Your task to perform on an android device: Search for acer nitro on target.com, select the first entry, add it to the cart, then select checkout. Image 0: 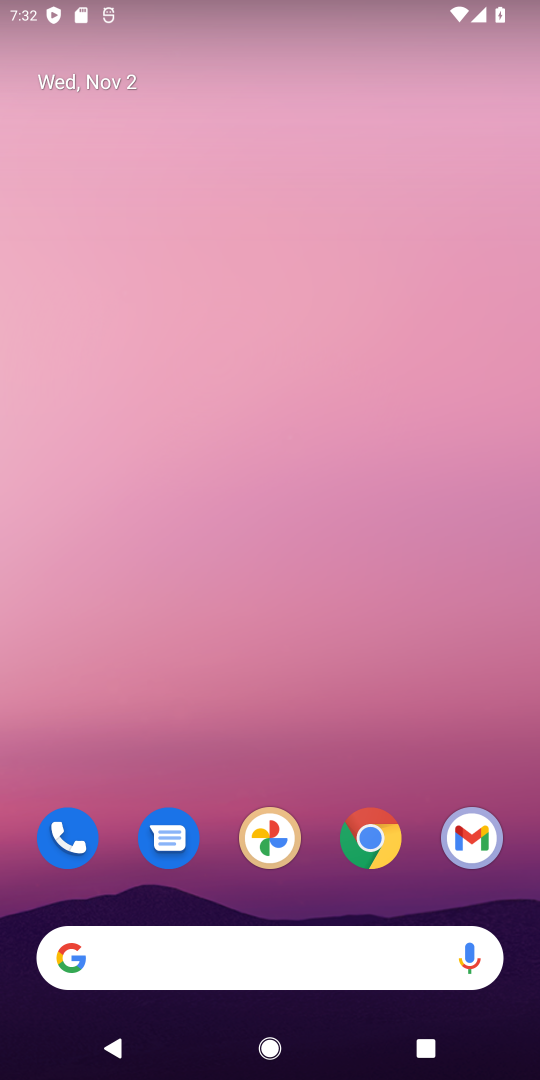
Step 0: click (378, 854)
Your task to perform on an android device: Search for acer nitro on target.com, select the first entry, add it to the cart, then select checkout. Image 1: 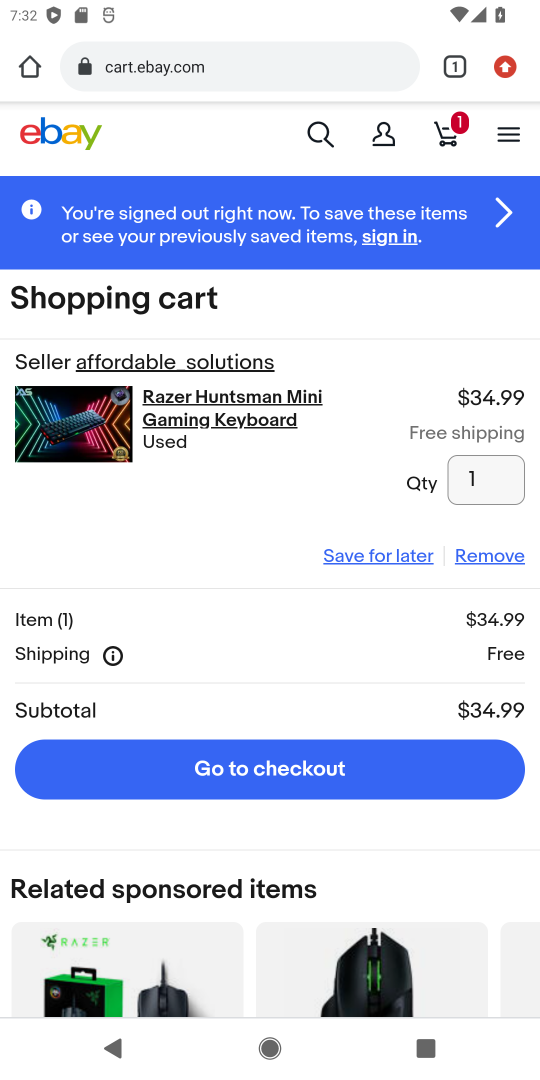
Step 1: click (244, 65)
Your task to perform on an android device: Search for acer nitro on target.com, select the first entry, add it to the cart, then select checkout. Image 2: 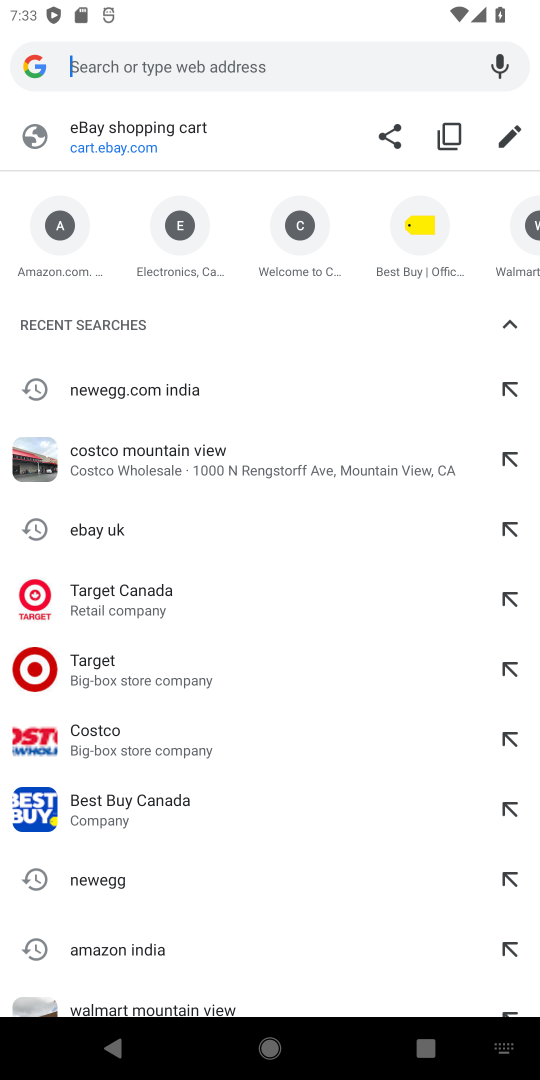
Step 2: type "target.com"
Your task to perform on an android device: Search for acer nitro on target.com, select the first entry, add it to the cart, then select checkout. Image 3: 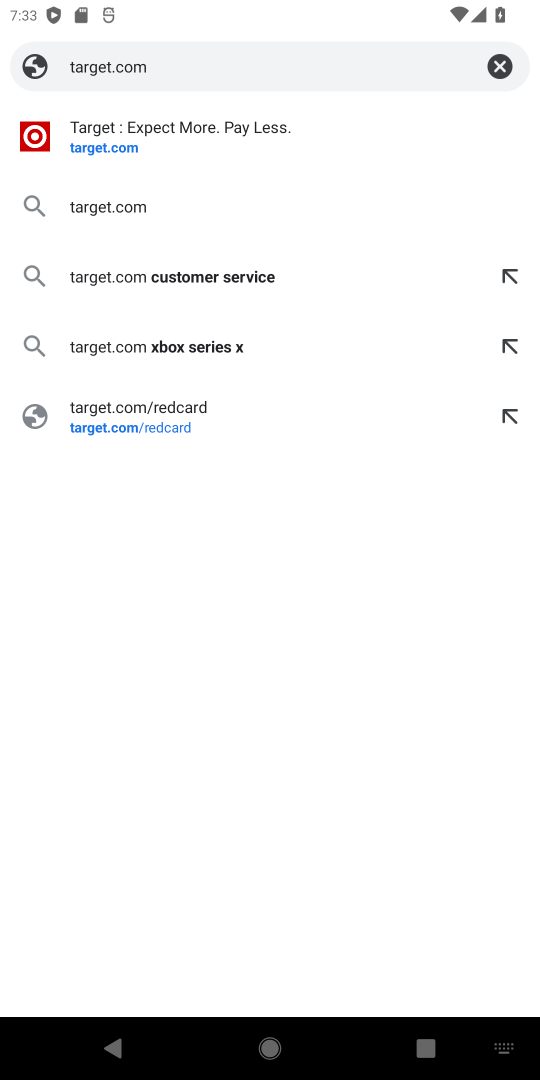
Step 3: press enter
Your task to perform on an android device: Search for acer nitro on target.com, select the first entry, add it to the cart, then select checkout. Image 4: 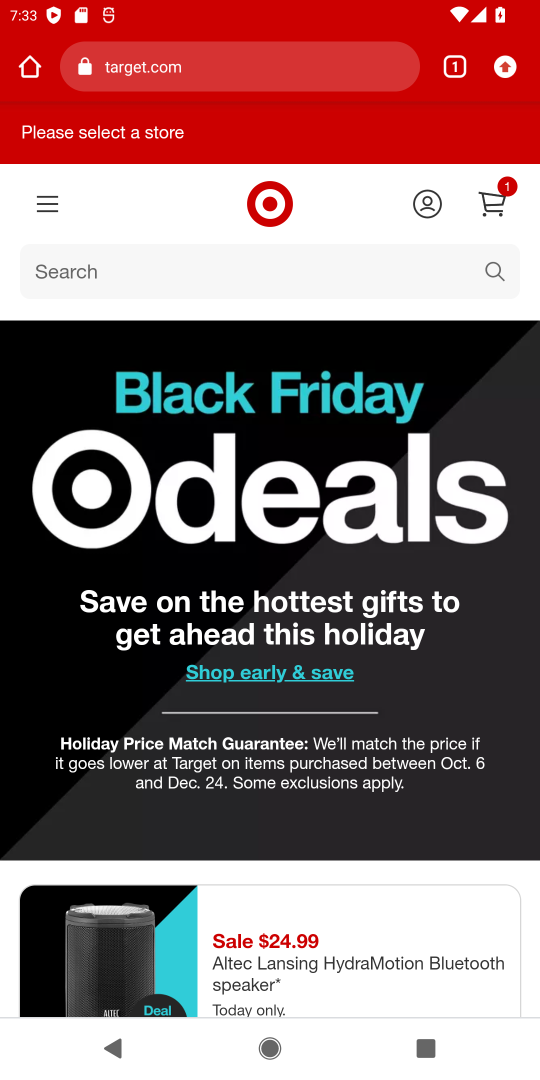
Step 4: click (257, 271)
Your task to perform on an android device: Search for acer nitro on target.com, select the first entry, add it to the cart, then select checkout. Image 5: 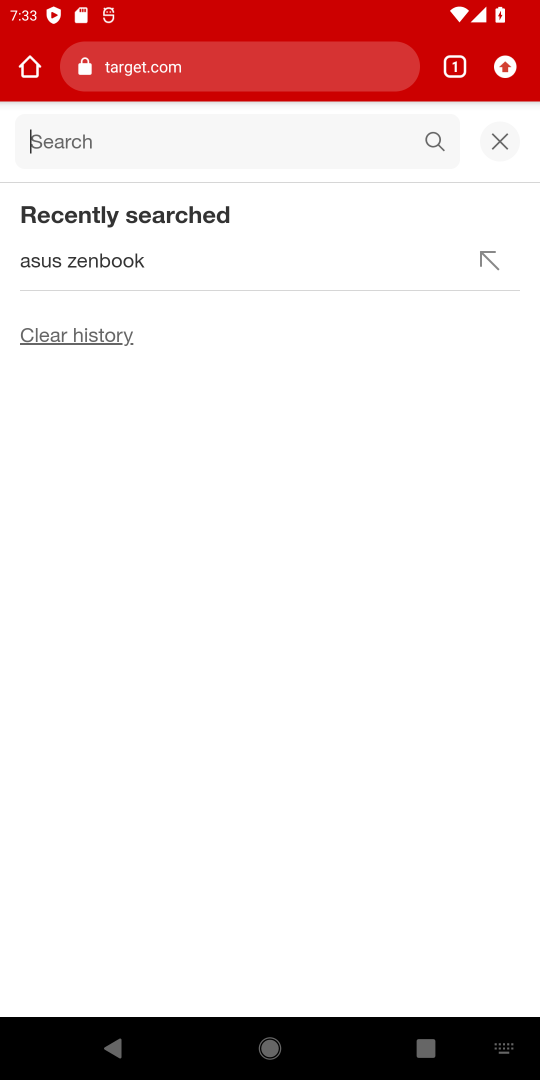
Step 5: type "acer nitro"
Your task to perform on an android device: Search for acer nitro on target.com, select the first entry, add it to the cart, then select checkout. Image 6: 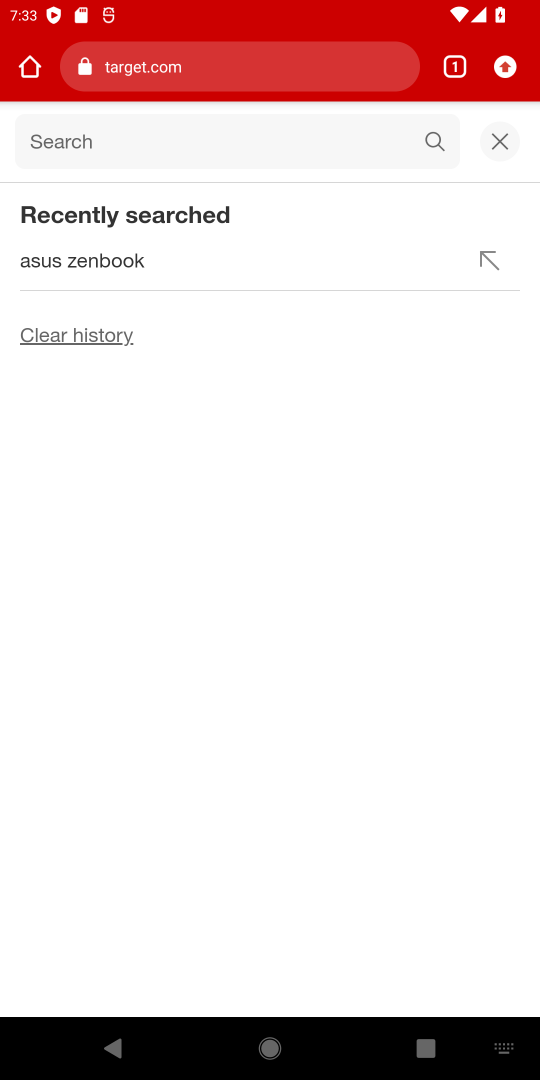
Step 6: type ""
Your task to perform on an android device: Search for acer nitro on target.com, select the first entry, add it to the cart, then select checkout. Image 7: 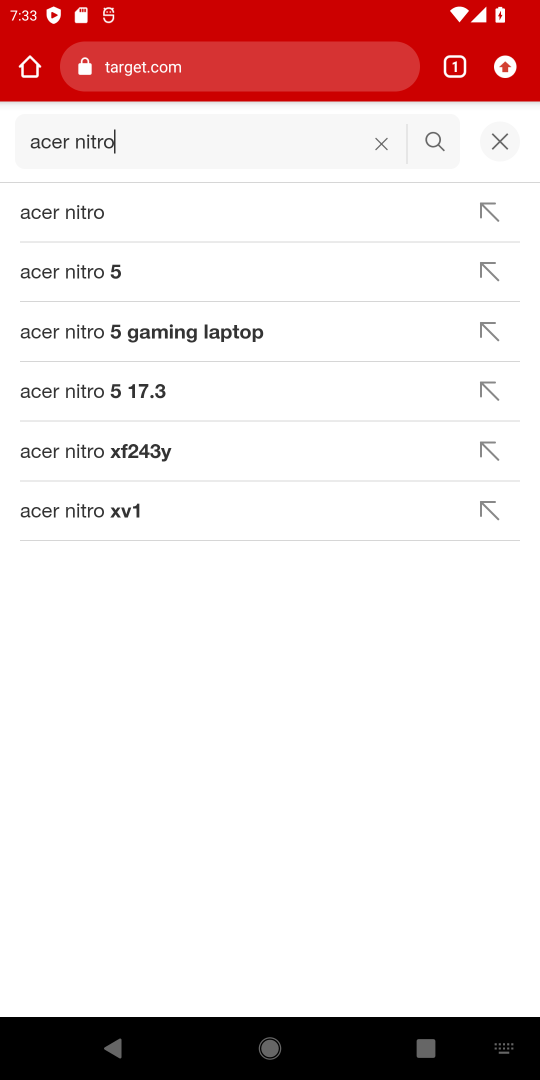
Step 7: press enter
Your task to perform on an android device: Search for acer nitro on target.com, select the first entry, add it to the cart, then select checkout. Image 8: 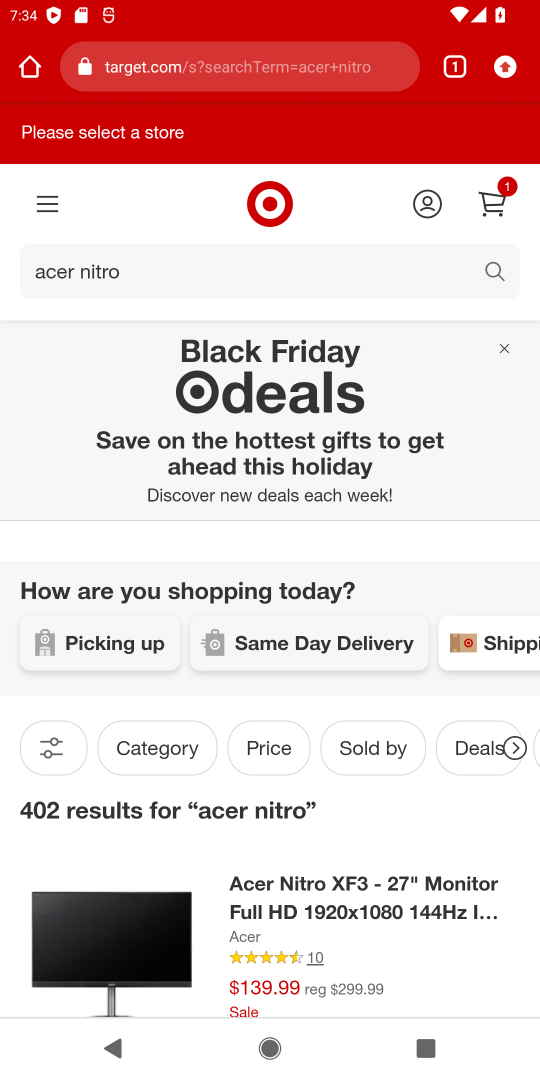
Step 8: drag from (367, 820) to (341, 543)
Your task to perform on an android device: Search for acer nitro on target.com, select the first entry, add it to the cart, then select checkout. Image 9: 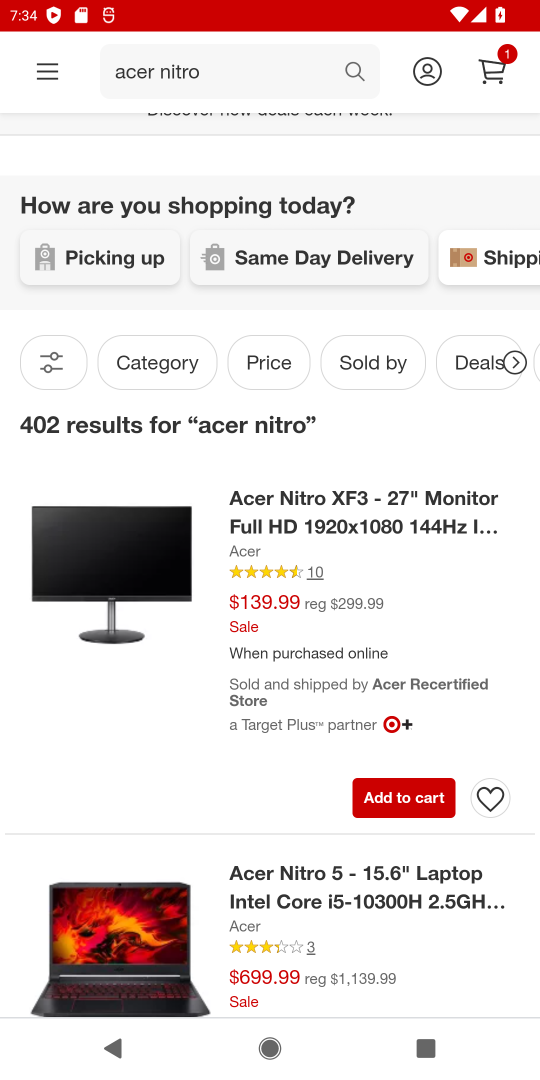
Step 9: click (380, 515)
Your task to perform on an android device: Search for acer nitro on target.com, select the first entry, add it to the cart, then select checkout. Image 10: 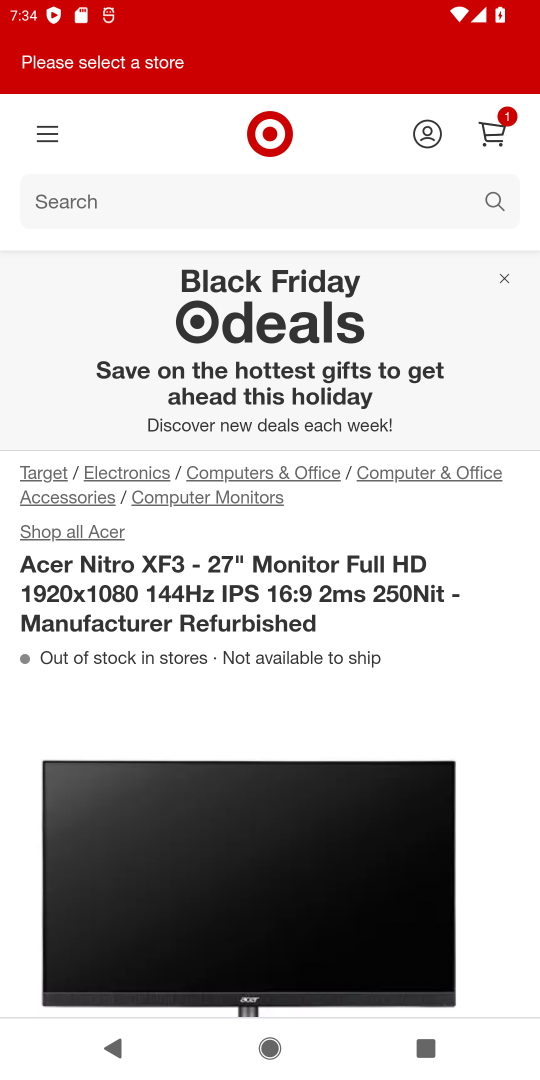
Step 10: drag from (446, 900) to (413, 669)
Your task to perform on an android device: Search for acer nitro on target.com, select the first entry, add it to the cart, then select checkout. Image 11: 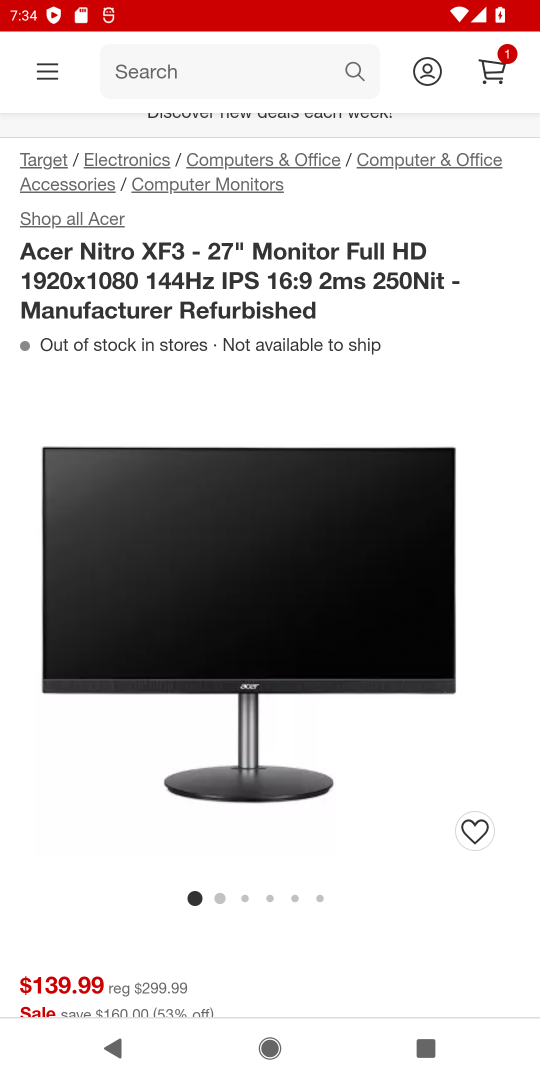
Step 11: press back button
Your task to perform on an android device: Search for acer nitro on target.com, select the first entry, add it to the cart, then select checkout. Image 12: 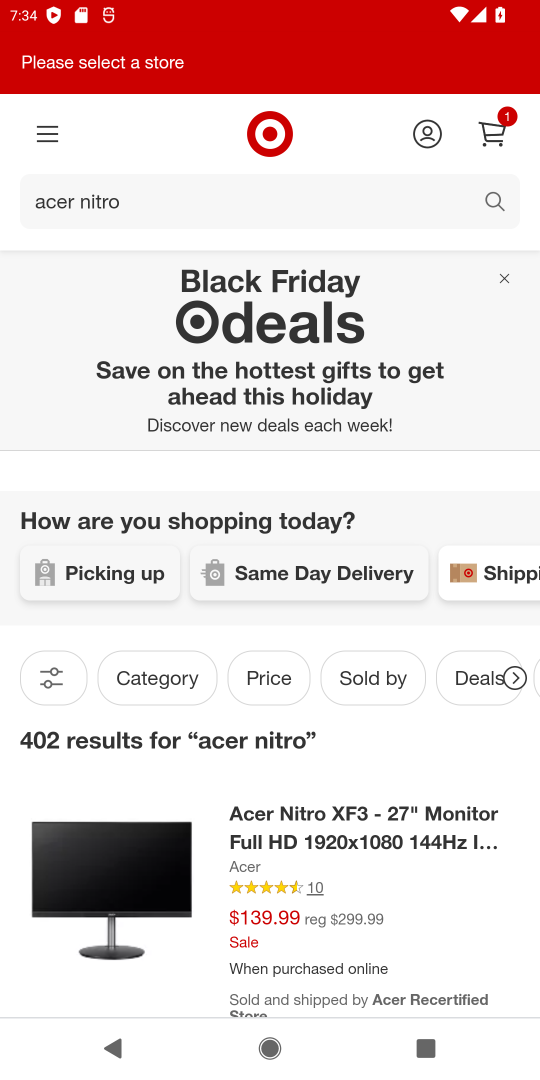
Step 12: drag from (312, 885) to (284, 380)
Your task to perform on an android device: Search for acer nitro on target.com, select the first entry, add it to the cart, then select checkout. Image 13: 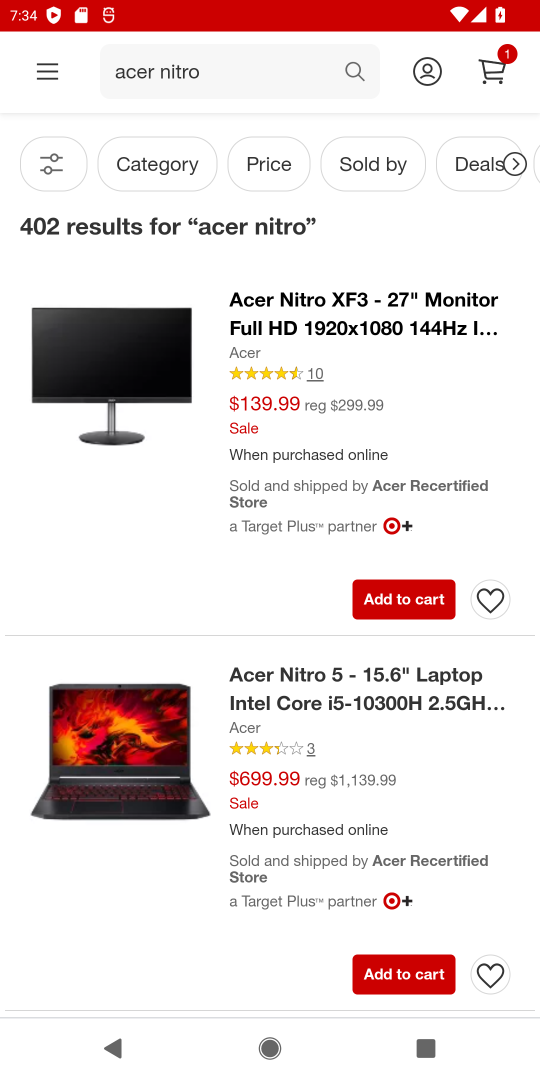
Step 13: click (373, 689)
Your task to perform on an android device: Search for acer nitro on target.com, select the first entry, add it to the cart, then select checkout. Image 14: 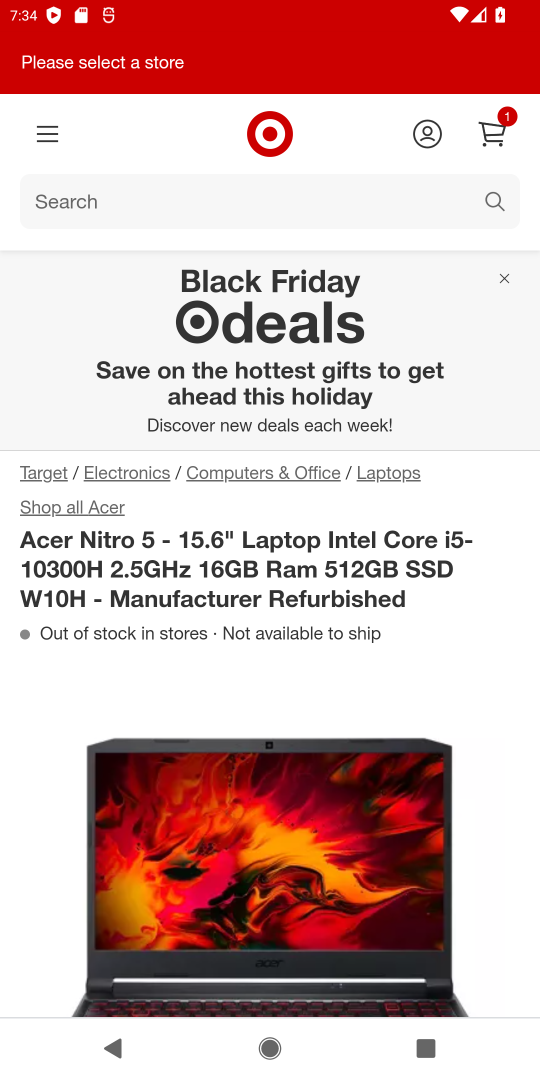
Step 14: drag from (443, 860) to (439, 782)
Your task to perform on an android device: Search for acer nitro on target.com, select the first entry, add it to the cart, then select checkout. Image 15: 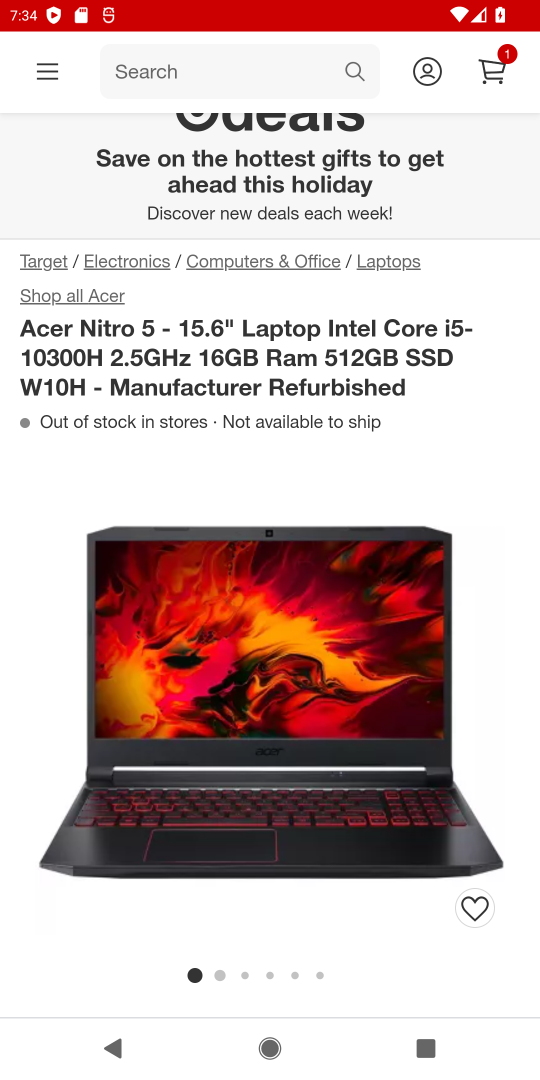
Step 15: press back button
Your task to perform on an android device: Search for acer nitro on target.com, select the first entry, add it to the cart, then select checkout. Image 16: 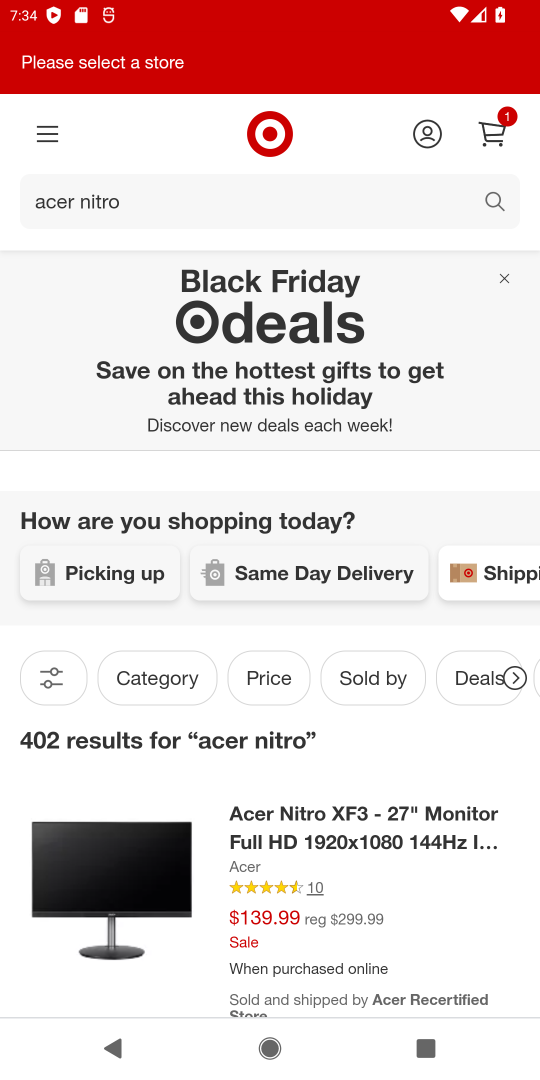
Step 16: drag from (365, 918) to (319, 298)
Your task to perform on an android device: Search for acer nitro on target.com, select the first entry, add it to the cart, then select checkout. Image 17: 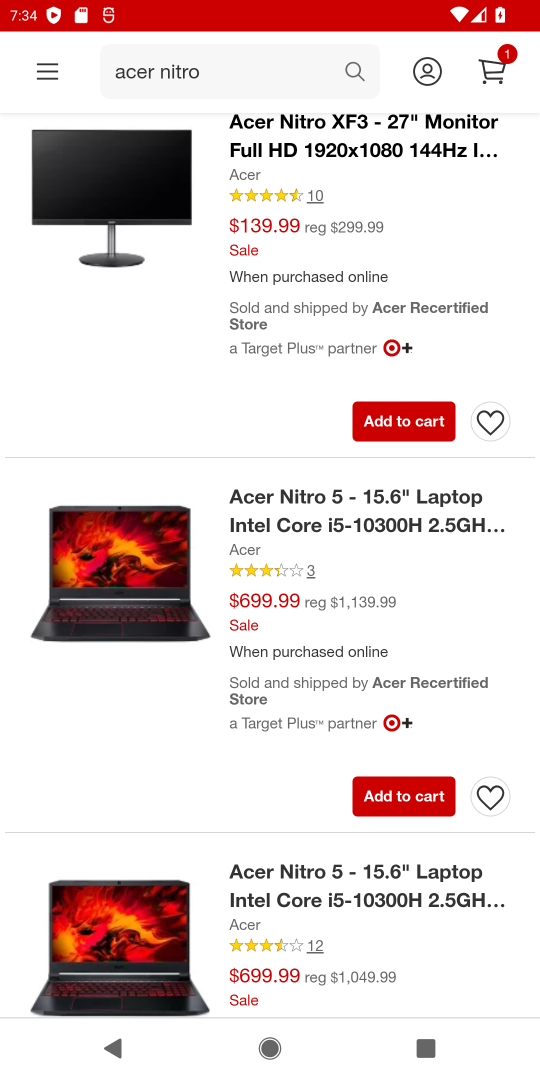
Step 17: click (423, 906)
Your task to perform on an android device: Search for acer nitro on target.com, select the first entry, add it to the cart, then select checkout. Image 18: 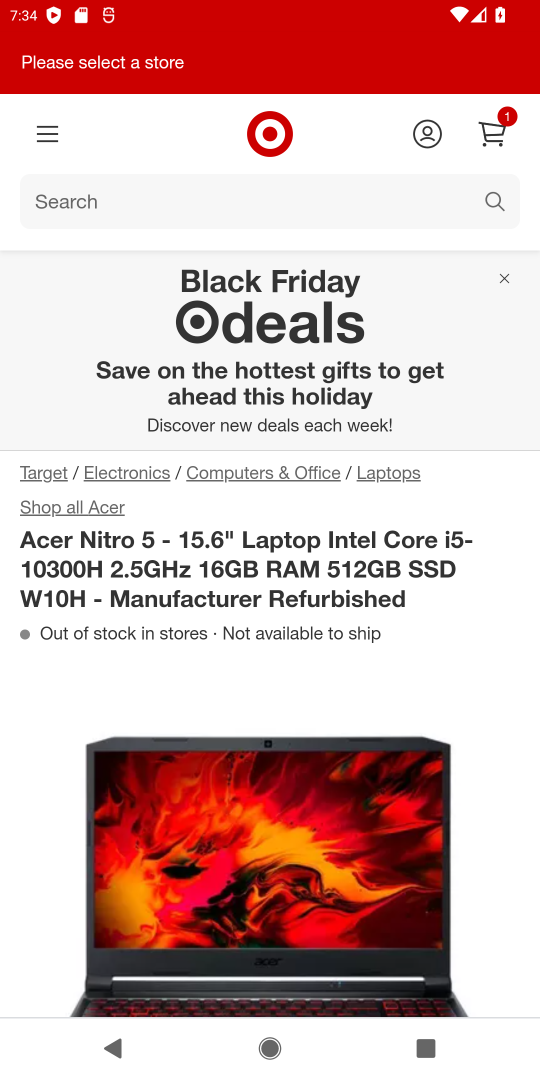
Step 18: drag from (385, 819) to (363, 204)
Your task to perform on an android device: Search for acer nitro on target.com, select the first entry, add it to the cart, then select checkout. Image 19: 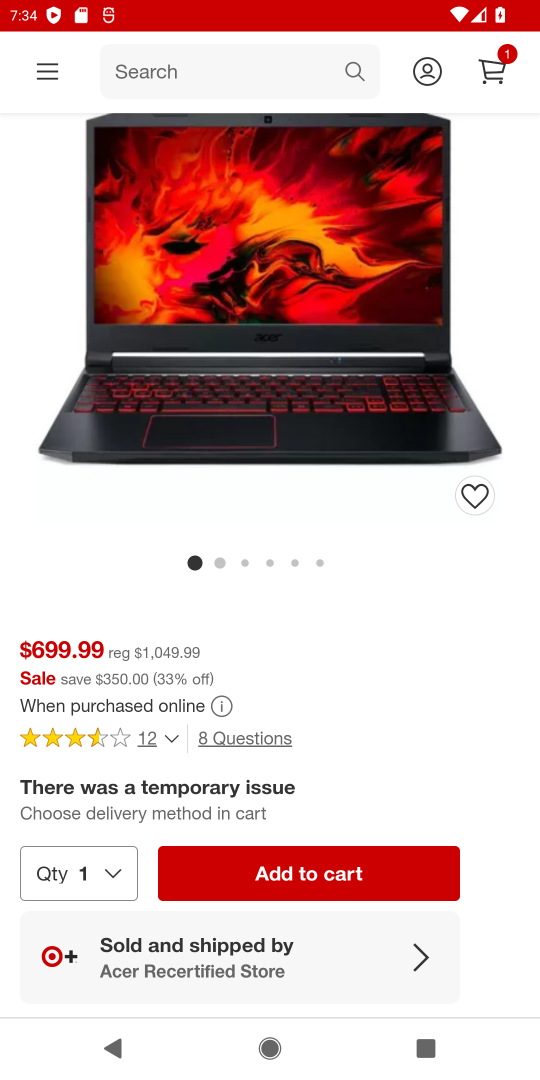
Step 19: click (362, 869)
Your task to perform on an android device: Search for acer nitro on target.com, select the first entry, add it to the cart, then select checkout. Image 20: 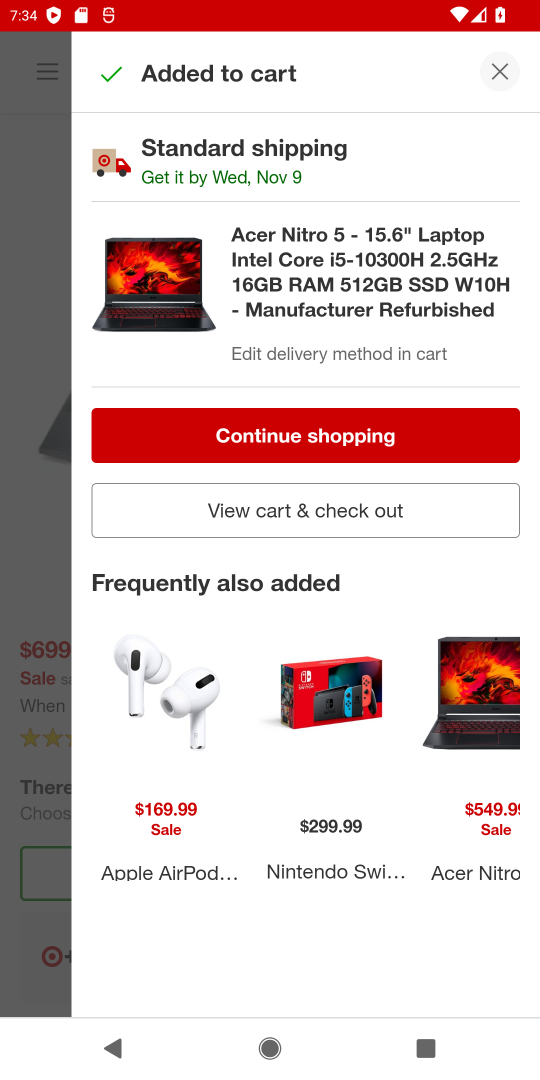
Step 20: click (406, 517)
Your task to perform on an android device: Search for acer nitro on target.com, select the first entry, add it to the cart, then select checkout. Image 21: 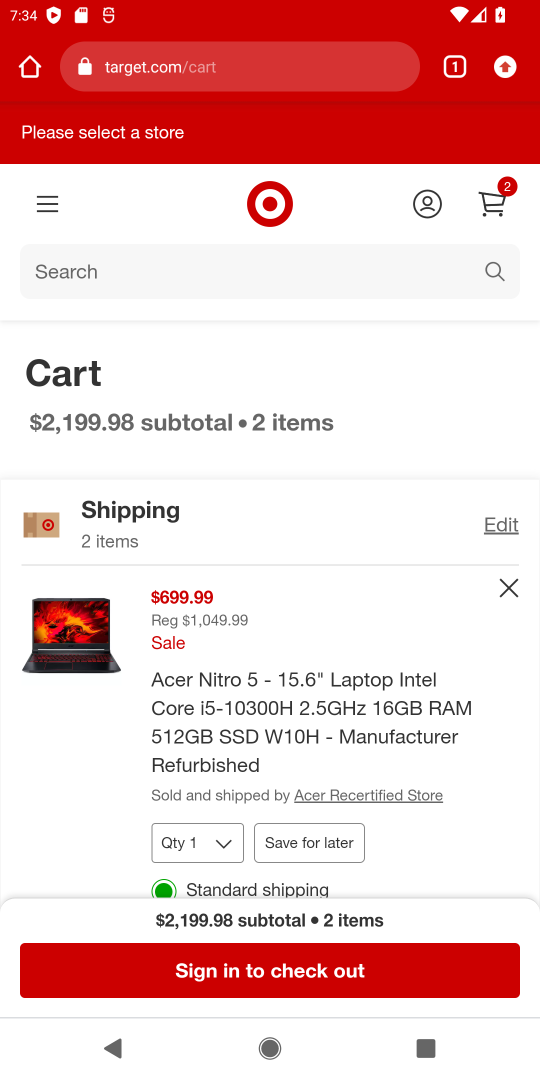
Step 21: task complete